Your task to perform on an android device: toggle wifi Image 0: 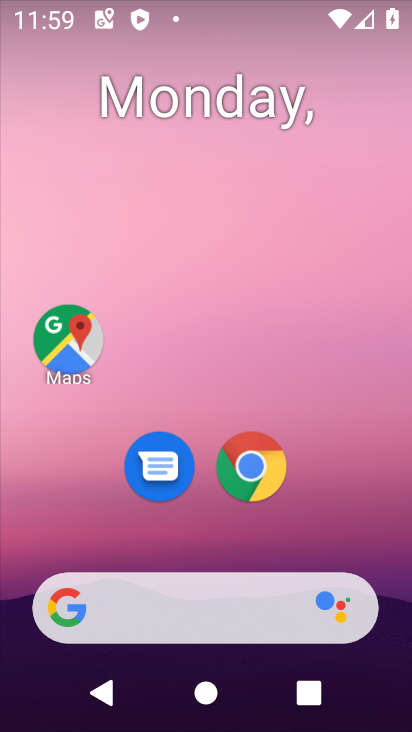
Step 0: drag from (182, 546) to (193, 47)
Your task to perform on an android device: toggle wifi Image 1: 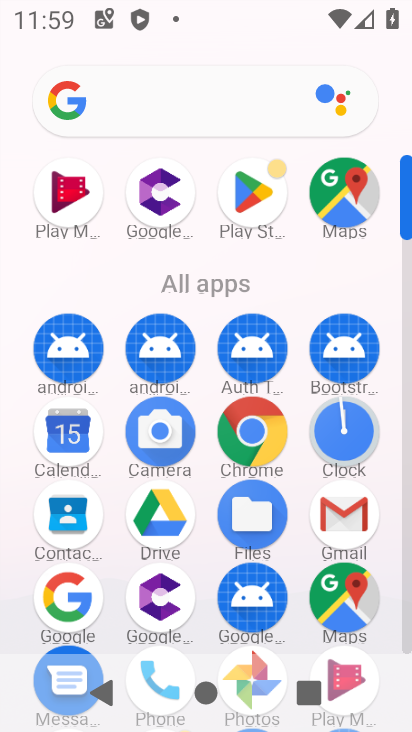
Step 1: drag from (98, 498) to (184, 134)
Your task to perform on an android device: toggle wifi Image 2: 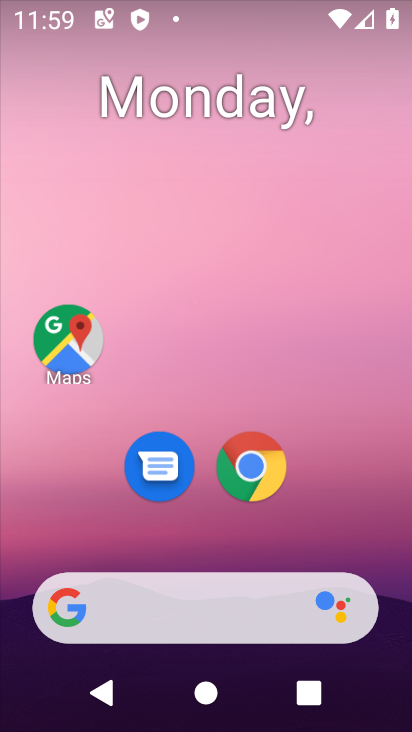
Step 2: click (368, 472)
Your task to perform on an android device: toggle wifi Image 3: 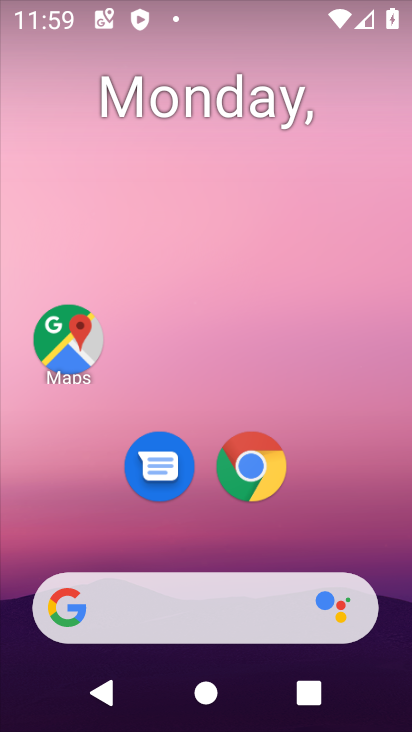
Step 3: drag from (212, 560) to (221, 170)
Your task to perform on an android device: toggle wifi Image 4: 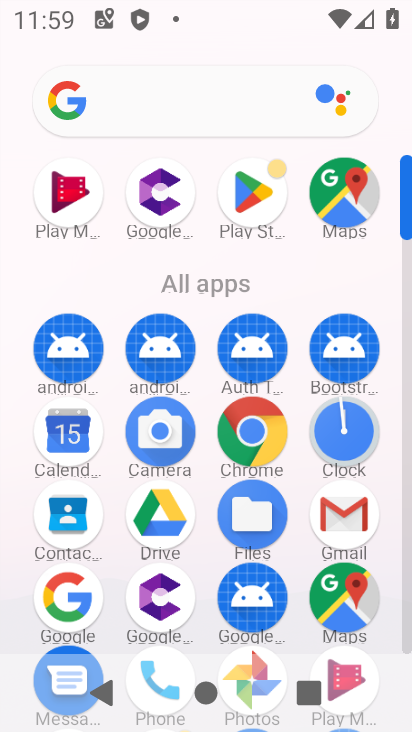
Step 4: drag from (205, 642) to (221, 147)
Your task to perform on an android device: toggle wifi Image 5: 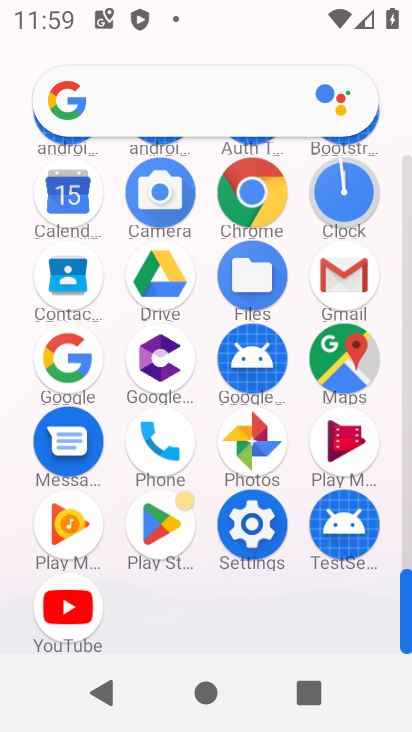
Step 5: click (240, 539)
Your task to perform on an android device: toggle wifi Image 6: 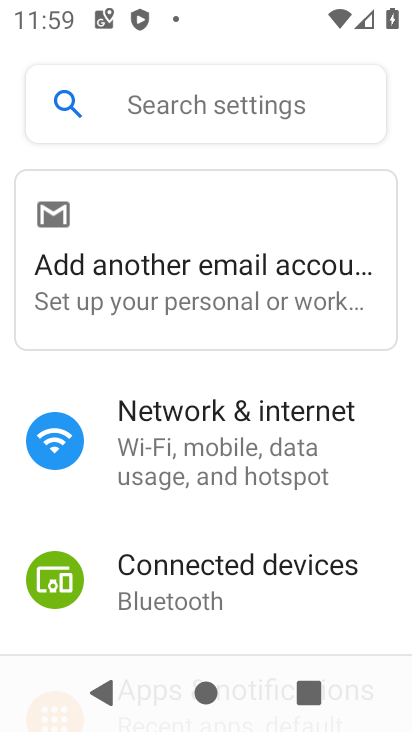
Step 6: click (185, 425)
Your task to perform on an android device: toggle wifi Image 7: 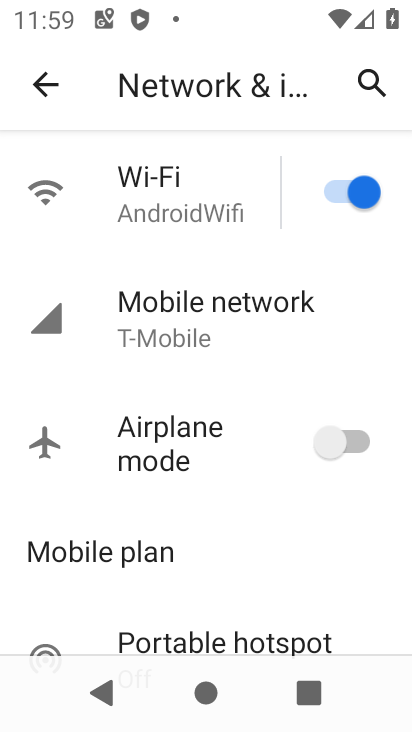
Step 7: click (345, 198)
Your task to perform on an android device: toggle wifi Image 8: 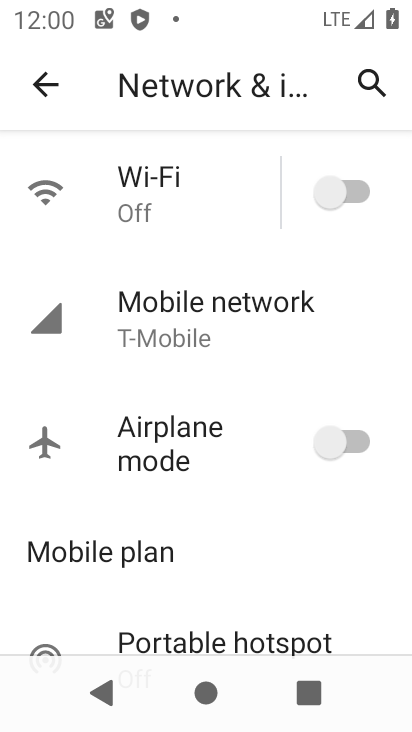
Step 8: task complete